Your task to perform on an android device: Go to Google maps Image 0: 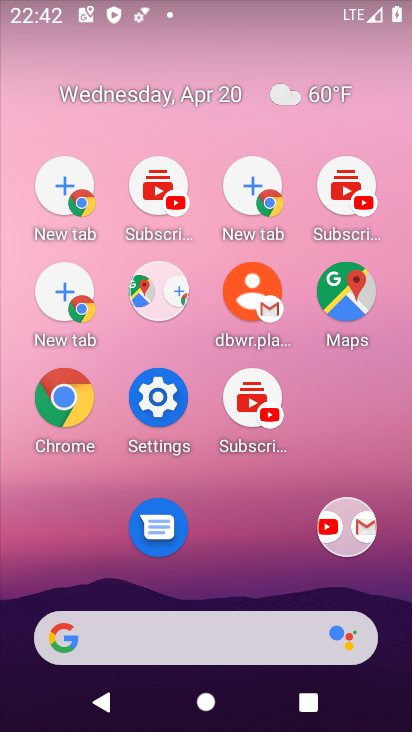
Step 0: click (336, 305)
Your task to perform on an android device: Go to Google maps Image 1: 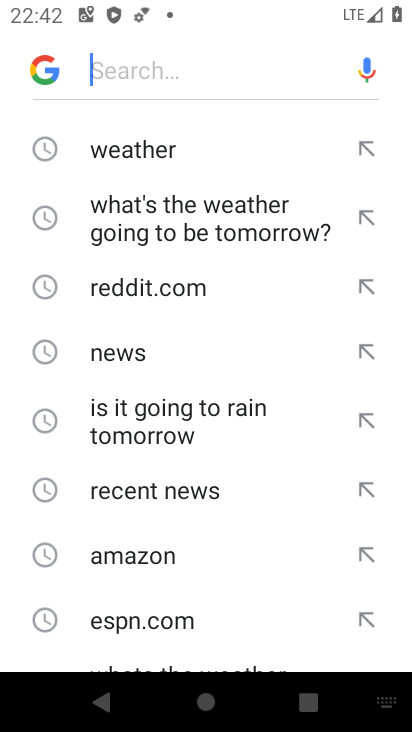
Step 1: press home button
Your task to perform on an android device: Go to Google maps Image 2: 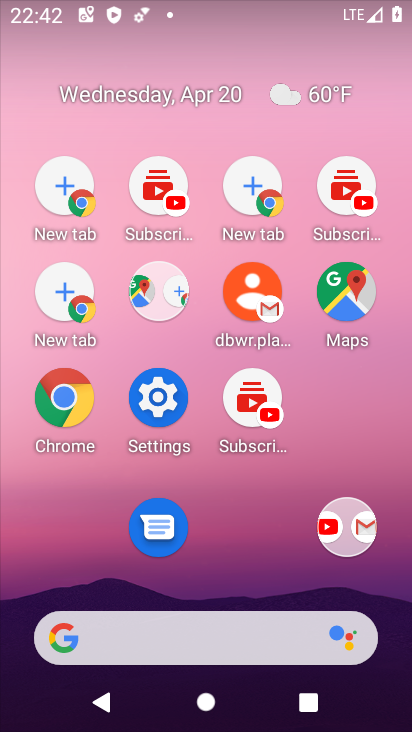
Step 2: drag from (299, 676) to (216, 94)
Your task to perform on an android device: Go to Google maps Image 3: 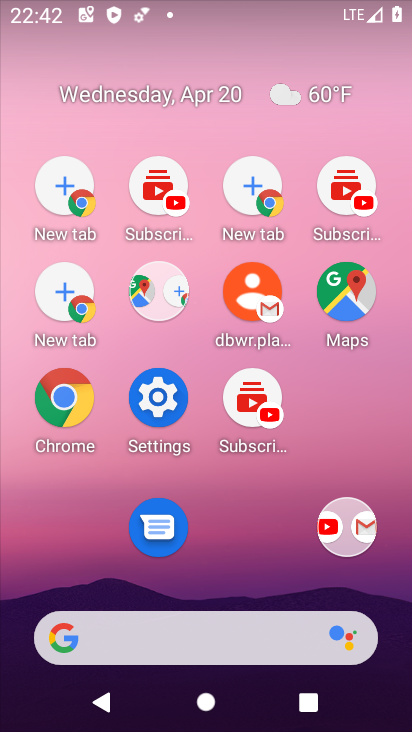
Step 3: drag from (351, 697) to (199, 140)
Your task to perform on an android device: Go to Google maps Image 4: 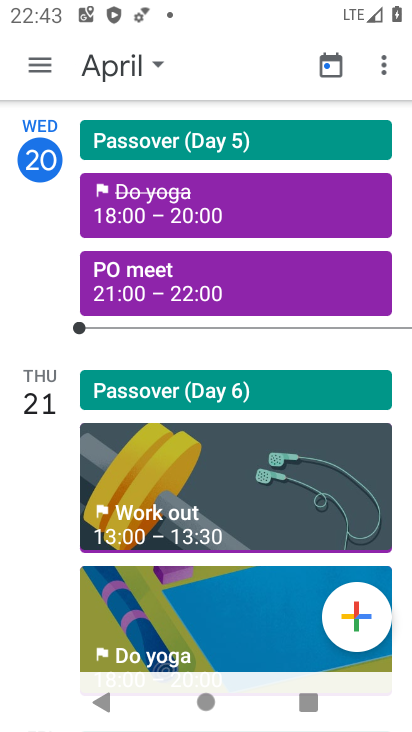
Step 4: press home button
Your task to perform on an android device: Go to Google maps Image 5: 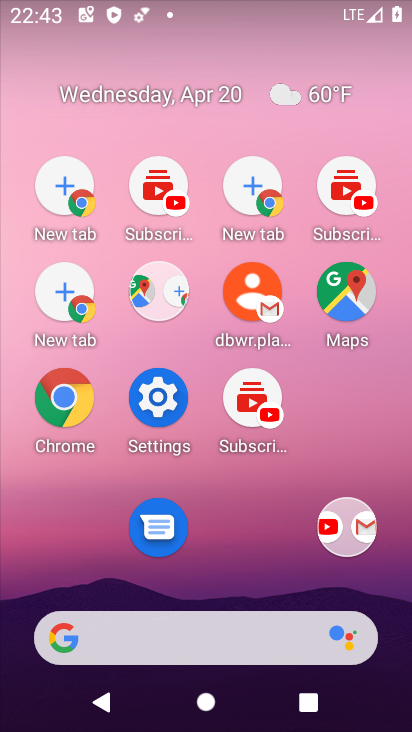
Step 5: drag from (289, 619) to (200, 129)
Your task to perform on an android device: Go to Google maps Image 6: 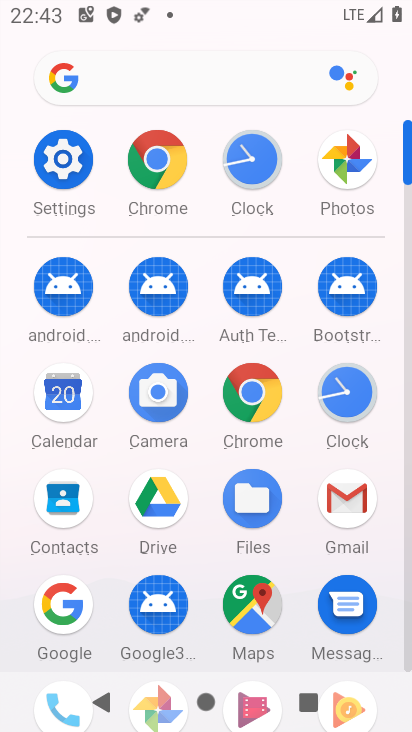
Step 6: click (253, 607)
Your task to perform on an android device: Go to Google maps Image 7: 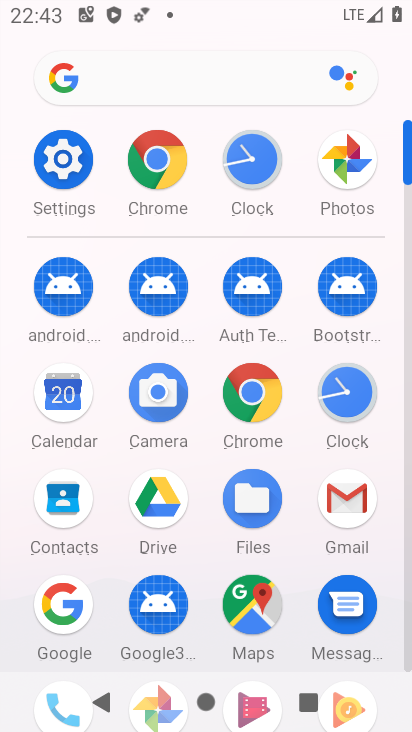
Step 7: click (254, 606)
Your task to perform on an android device: Go to Google maps Image 8: 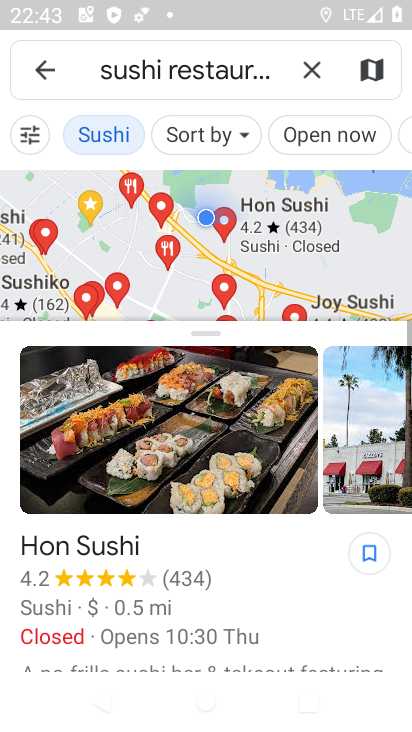
Step 8: task complete